Your task to perform on an android device: Open Google Chrome Image 0: 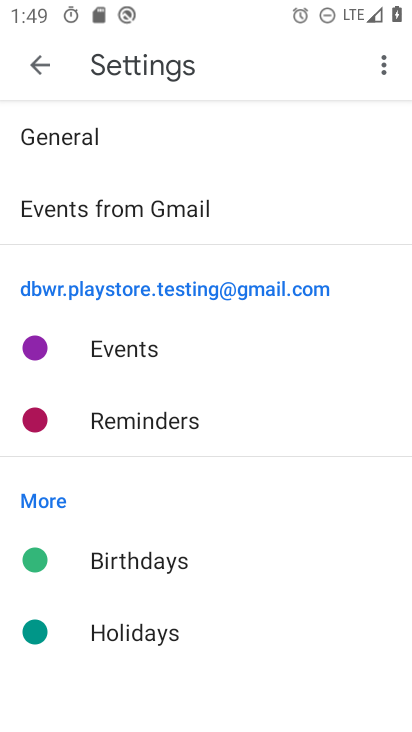
Step 0: press home button
Your task to perform on an android device: Open Google Chrome Image 1: 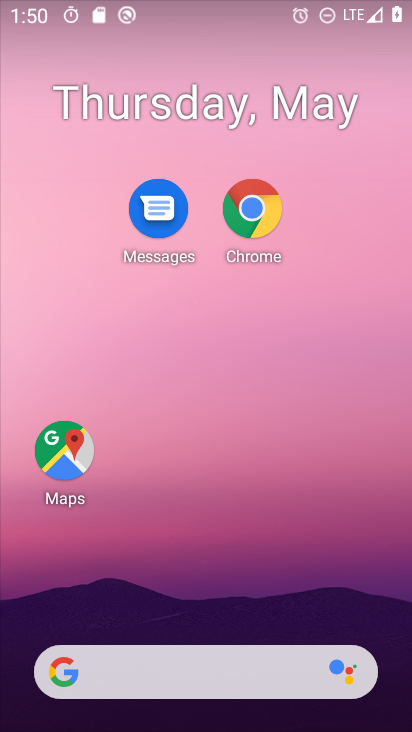
Step 1: click (251, 207)
Your task to perform on an android device: Open Google Chrome Image 2: 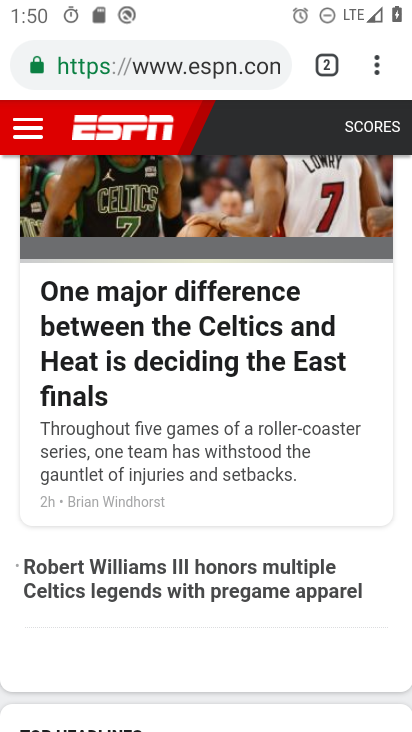
Step 2: task complete